Your task to perform on an android device: Go to Reddit.com Image 0: 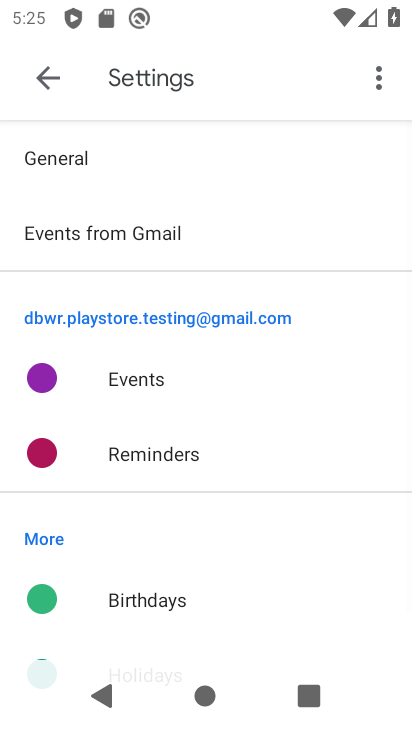
Step 0: press home button
Your task to perform on an android device: Go to Reddit.com Image 1: 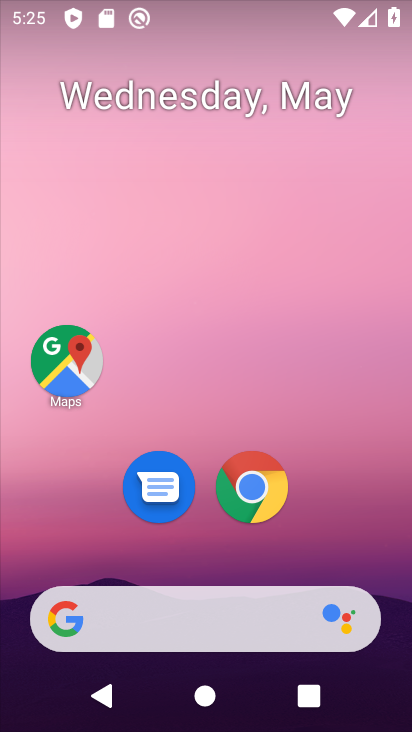
Step 1: click (247, 480)
Your task to perform on an android device: Go to Reddit.com Image 2: 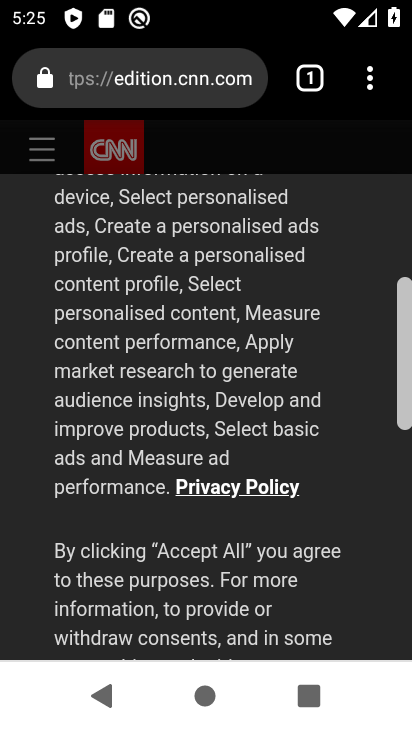
Step 2: click (162, 97)
Your task to perform on an android device: Go to Reddit.com Image 3: 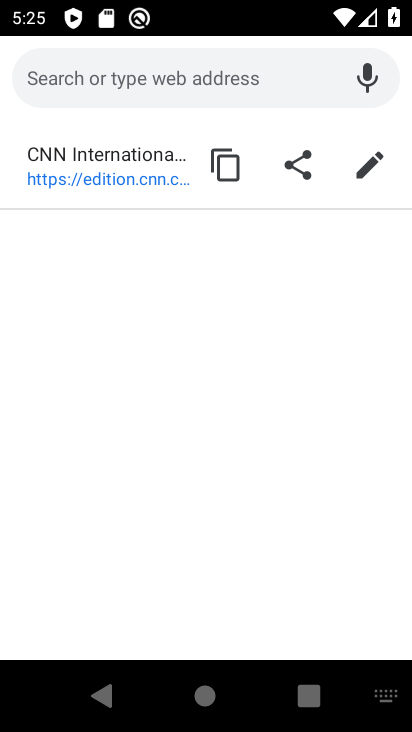
Step 3: type "www.reddit.com"
Your task to perform on an android device: Go to Reddit.com Image 4: 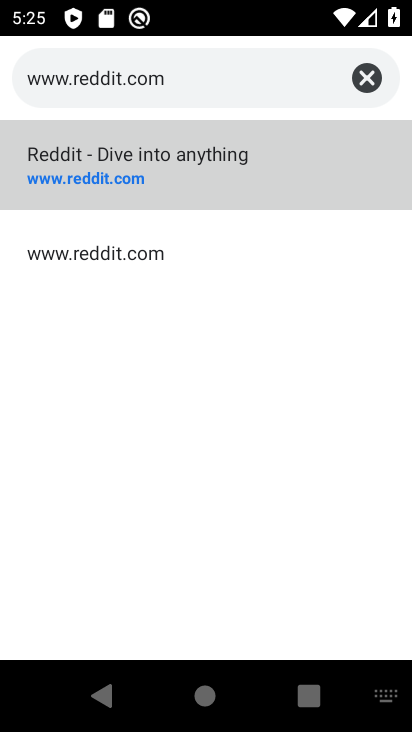
Step 4: click (110, 164)
Your task to perform on an android device: Go to Reddit.com Image 5: 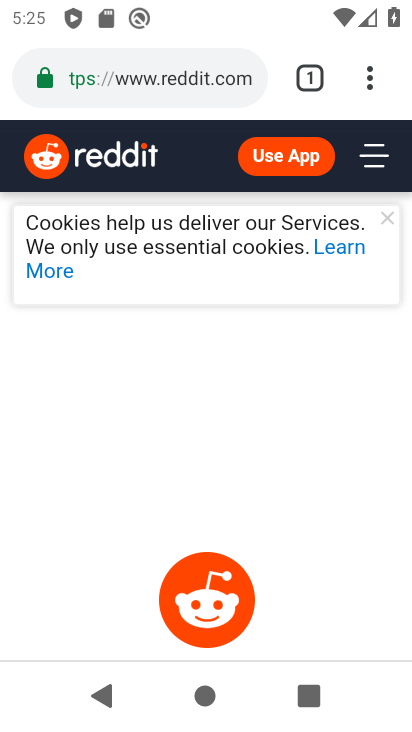
Step 5: task complete